Your task to perform on an android device: turn off translation in the chrome app Image 0: 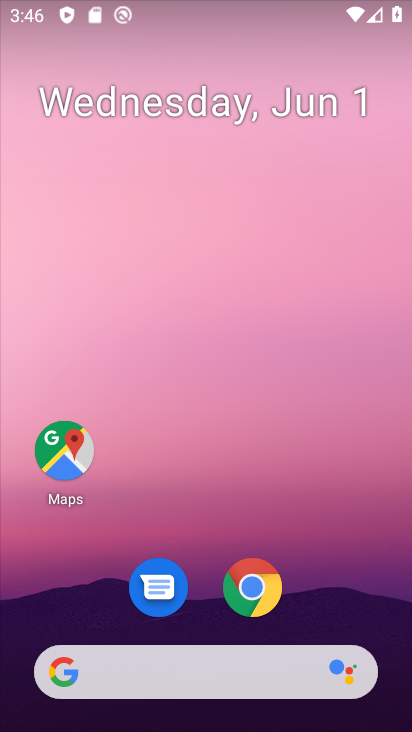
Step 0: click (250, 587)
Your task to perform on an android device: turn off translation in the chrome app Image 1: 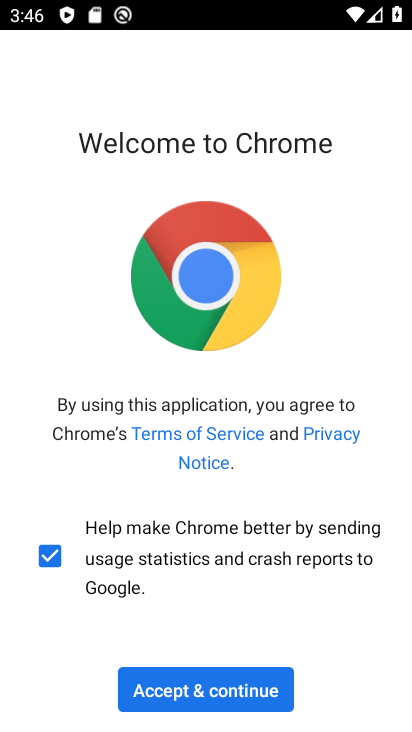
Step 1: click (190, 682)
Your task to perform on an android device: turn off translation in the chrome app Image 2: 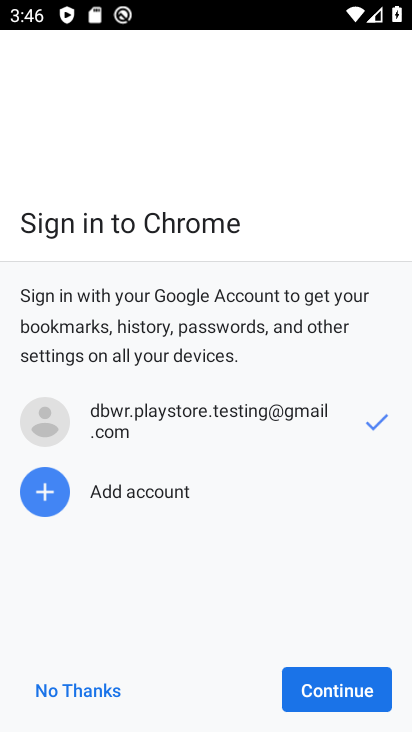
Step 2: click (338, 690)
Your task to perform on an android device: turn off translation in the chrome app Image 3: 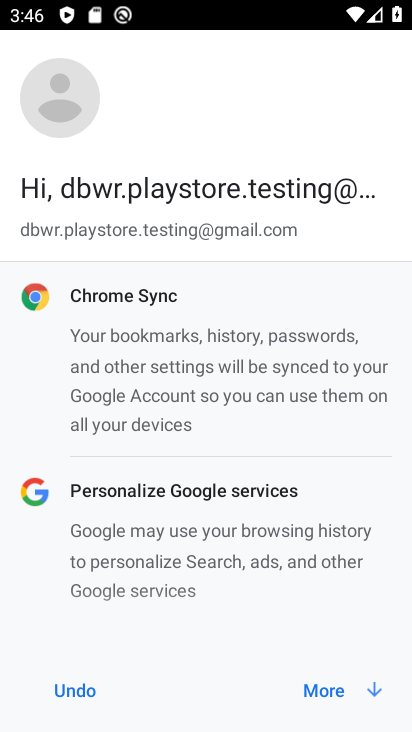
Step 3: click (338, 690)
Your task to perform on an android device: turn off translation in the chrome app Image 4: 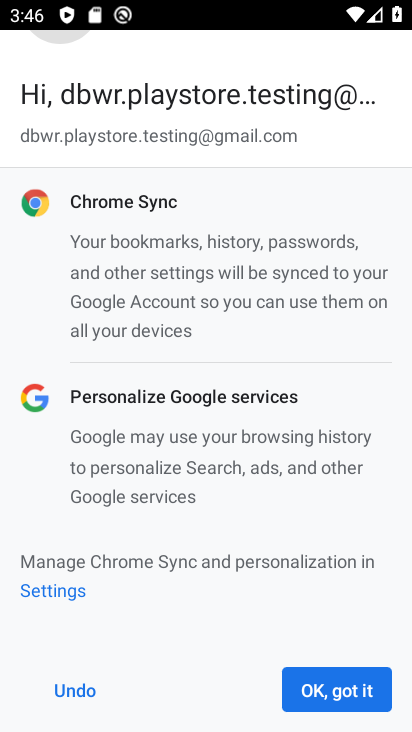
Step 4: click (338, 690)
Your task to perform on an android device: turn off translation in the chrome app Image 5: 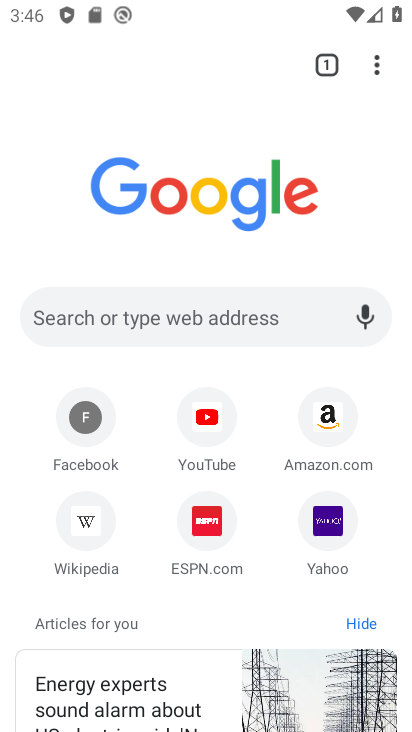
Step 5: click (377, 67)
Your task to perform on an android device: turn off translation in the chrome app Image 6: 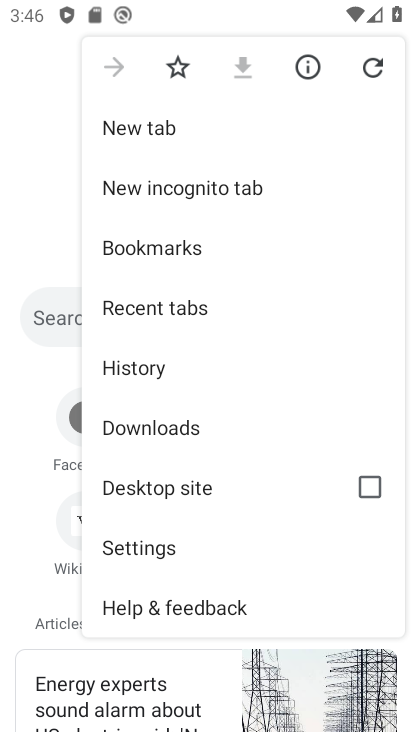
Step 6: drag from (185, 460) to (225, 375)
Your task to perform on an android device: turn off translation in the chrome app Image 7: 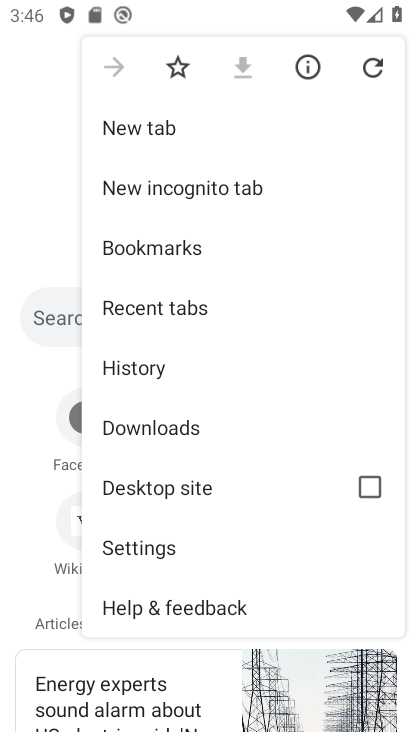
Step 7: click (145, 542)
Your task to perform on an android device: turn off translation in the chrome app Image 8: 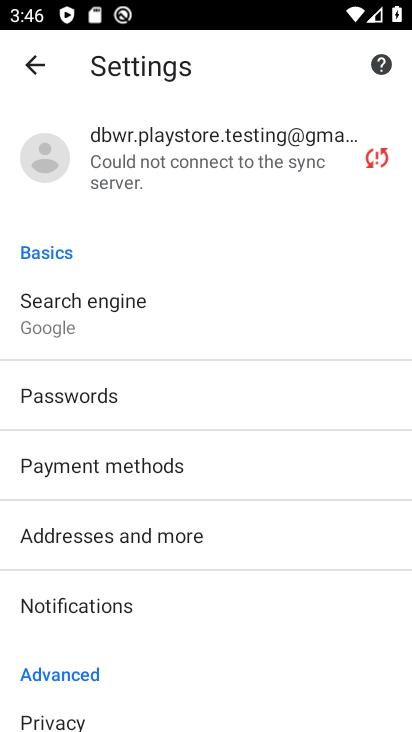
Step 8: drag from (121, 646) to (177, 554)
Your task to perform on an android device: turn off translation in the chrome app Image 9: 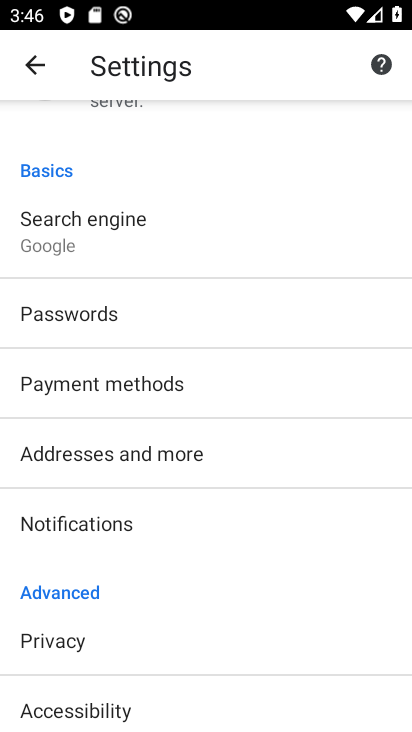
Step 9: drag from (126, 648) to (216, 550)
Your task to perform on an android device: turn off translation in the chrome app Image 10: 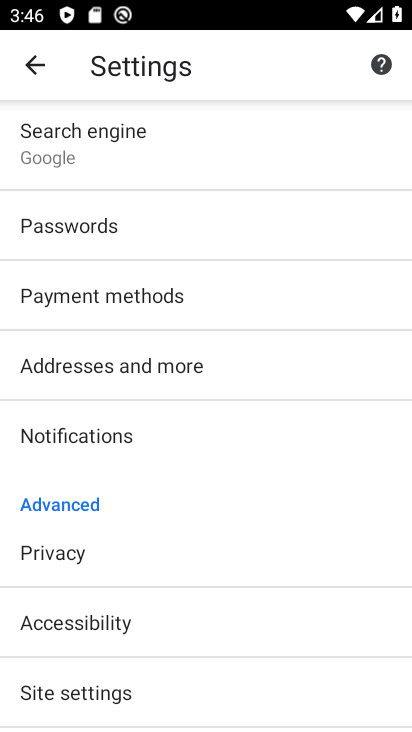
Step 10: drag from (171, 632) to (238, 544)
Your task to perform on an android device: turn off translation in the chrome app Image 11: 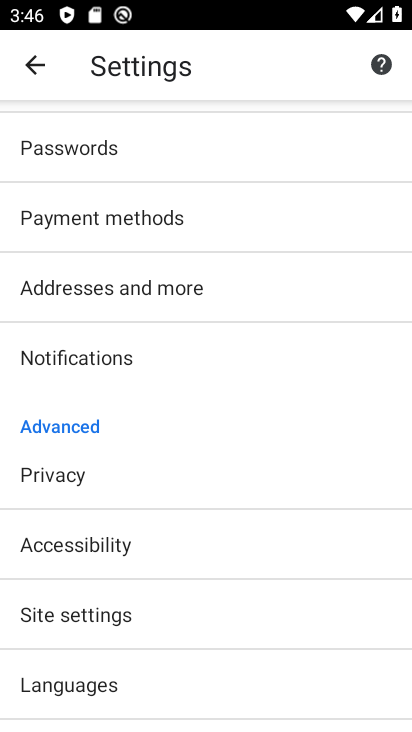
Step 11: drag from (170, 617) to (234, 536)
Your task to perform on an android device: turn off translation in the chrome app Image 12: 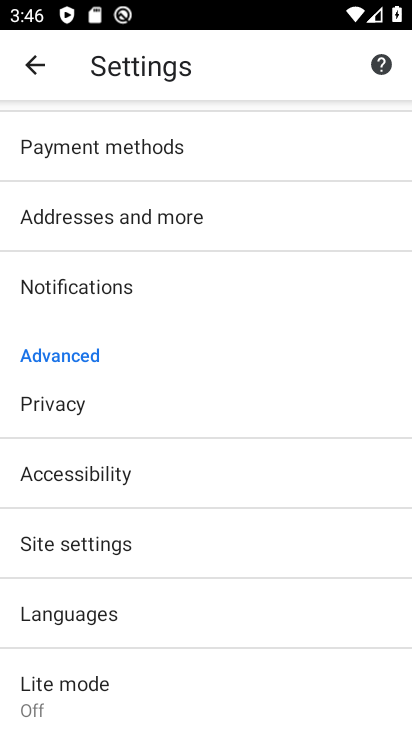
Step 12: click (117, 610)
Your task to perform on an android device: turn off translation in the chrome app Image 13: 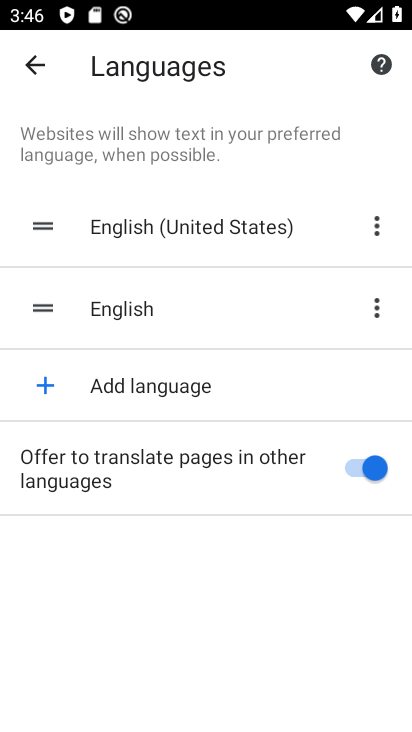
Step 13: click (346, 469)
Your task to perform on an android device: turn off translation in the chrome app Image 14: 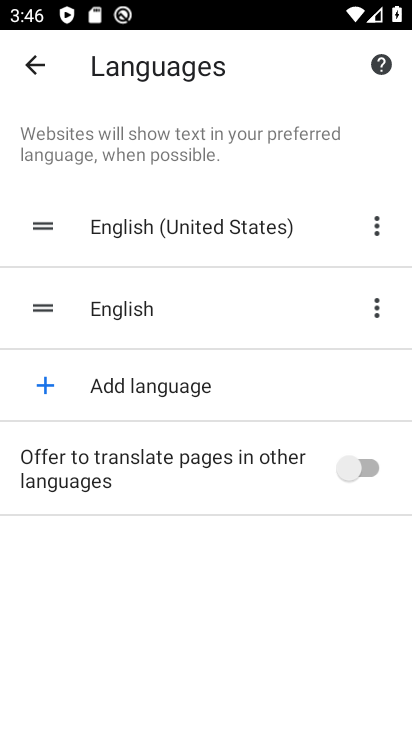
Step 14: task complete